Your task to perform on an android device: check android version Image 0: 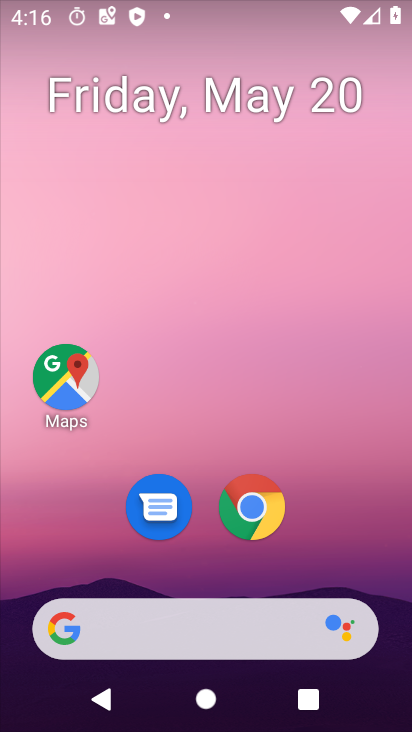
Step 0: drag from (331, 540) to (205, 103)
Your task to perform on an android device: check android version Image 1: 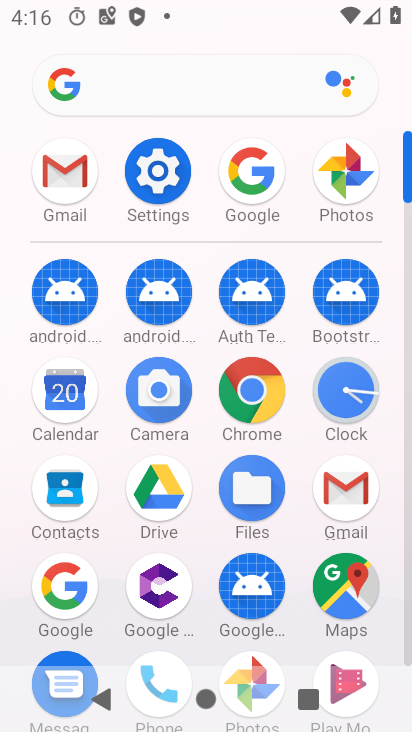
Step 1: click (158, 171)
Your task to perform on an android device: check android version Image 2: 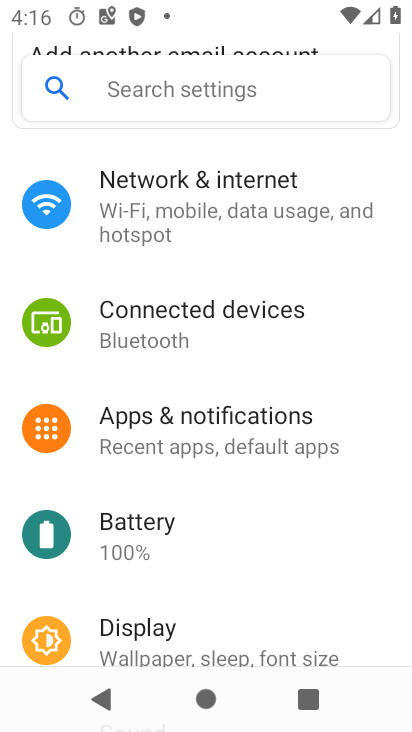
Step 2: drag from (184, 366) to (208, 276)
Your task to perform on an android device: check android version Image 3: 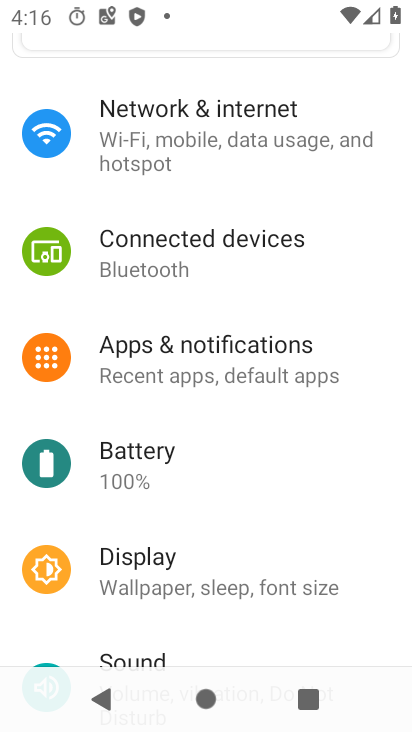
Step 3: drag from (182, 417) to (228, 329)
Your task to perform on an android device: check android version Image 4: 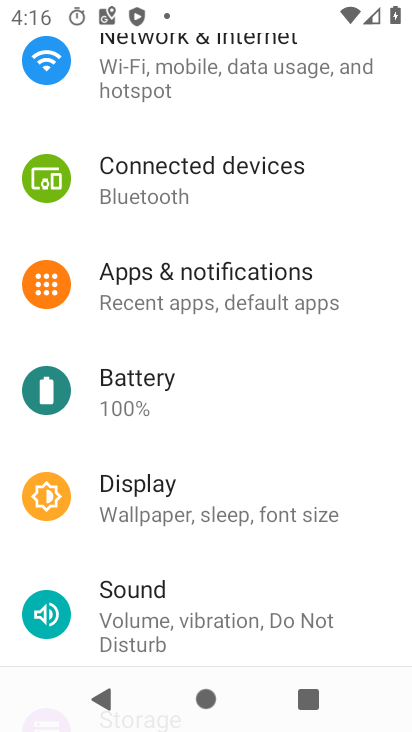
Step 4: drag from (174, 453) to (200, 363)
Your task to perform on an android device: check android version Image 5: 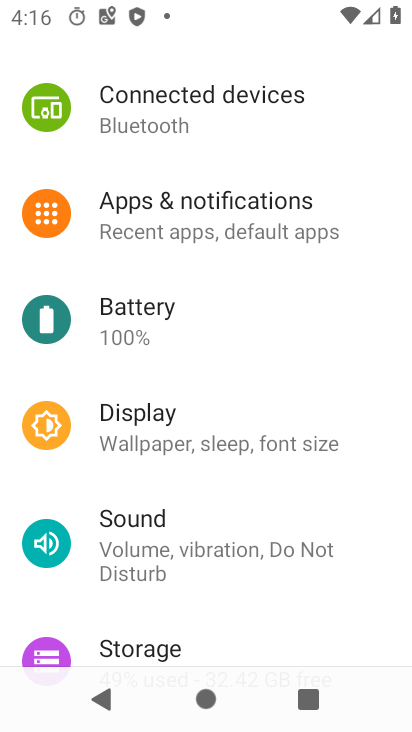
Step 5: drag from (155, 475) to (196, 394)
Your task to perform on an android device: check android version Image 6: 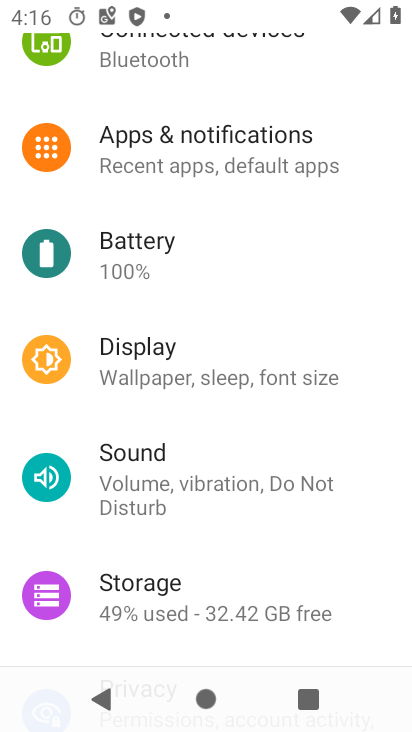
Step 6: drag from (136, 531) to (177, 448)
Your task to perform on an android device: check android version Image 7: 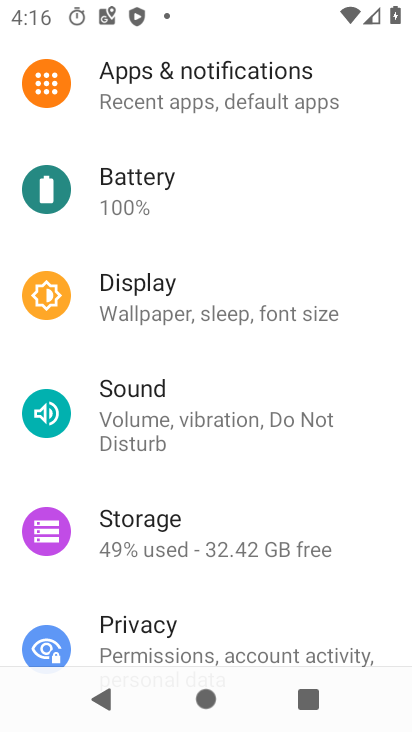
Step 7: drag from (132, 576) to (183, 477)
Your task to perform on an android device: check android version Image 8: 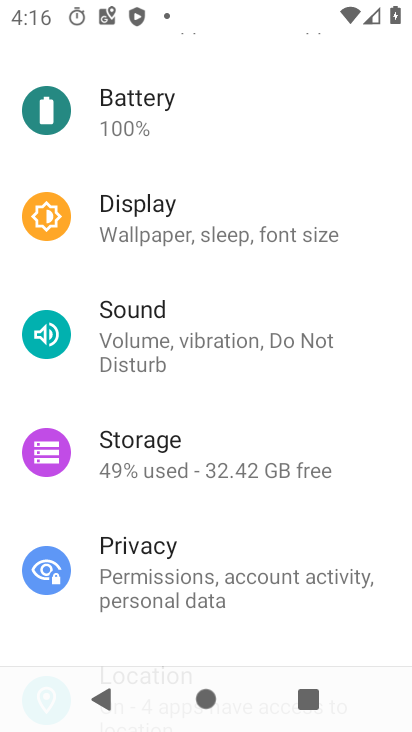
Step 8: drag from (134, 609) to (171, 512)
Your task to perform on an android device: check android version Image 9: 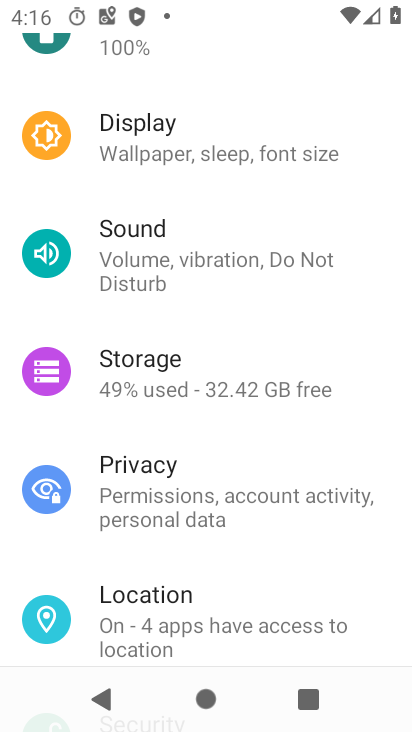
Step 9: drag from (122, 566) to (161, 463)
Your task to perform on an android device: check android version Image 10: 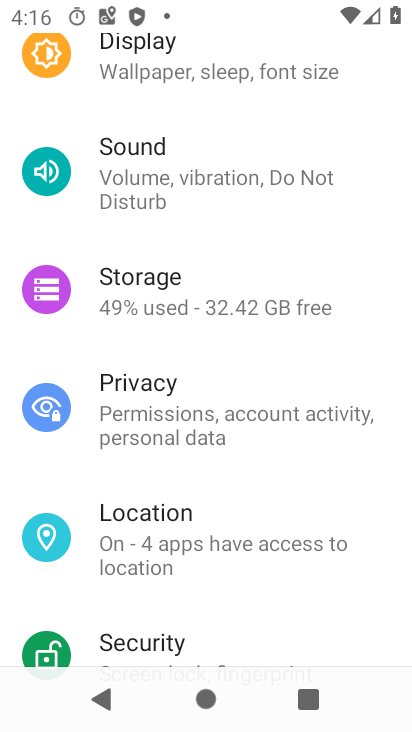
Step 10: drag from (120, 591) to (204, 465)
Your task to perform on an android device: check android version Image 11: 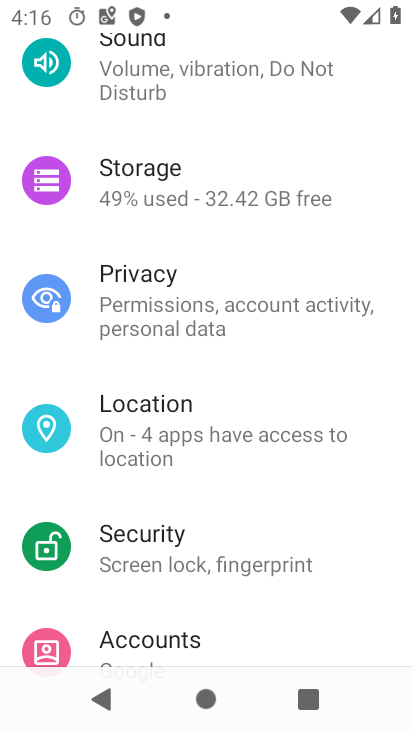
Step 11: drag from (120, 593) to (182, 479)
Your task to perform on an android device: check android version Image 12: 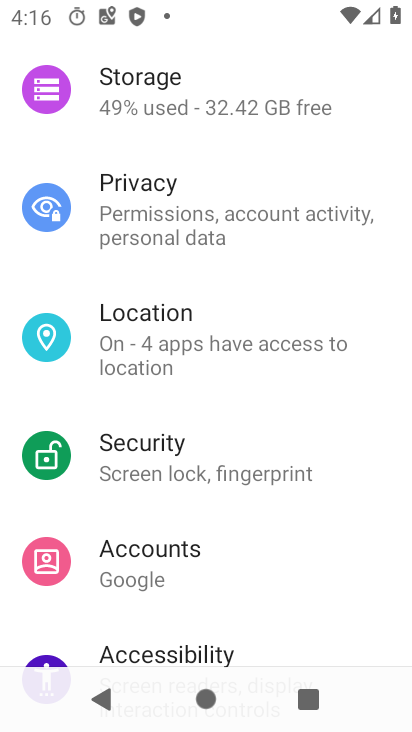
Step 12: drag from (104, 608) to (198, 489)
Your task to perform on an android device: check android version Image 13: 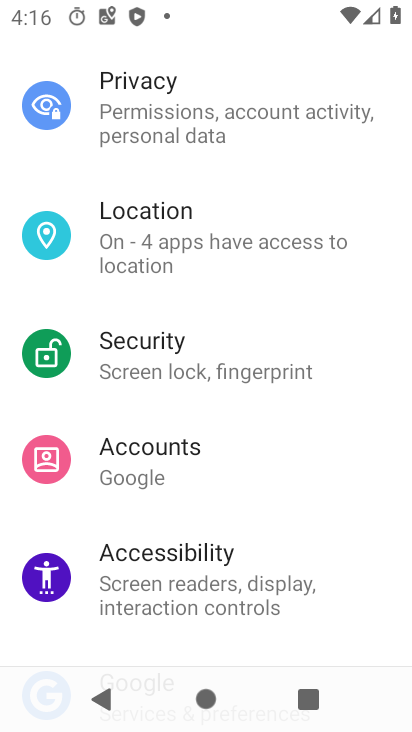
Step 13: drag from (113, 526) to (180, 430)
Your task to perform on an android device: check android version Image 14: 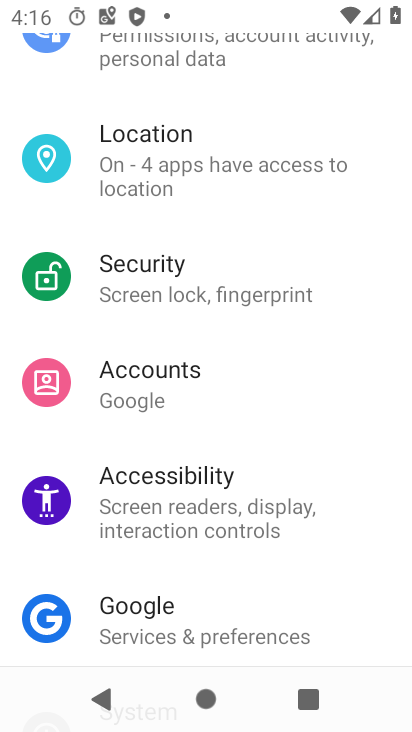
Step 14: drag from (128, 588) to (212, 462)
Your task to perform on an android device: check android version Image 15: 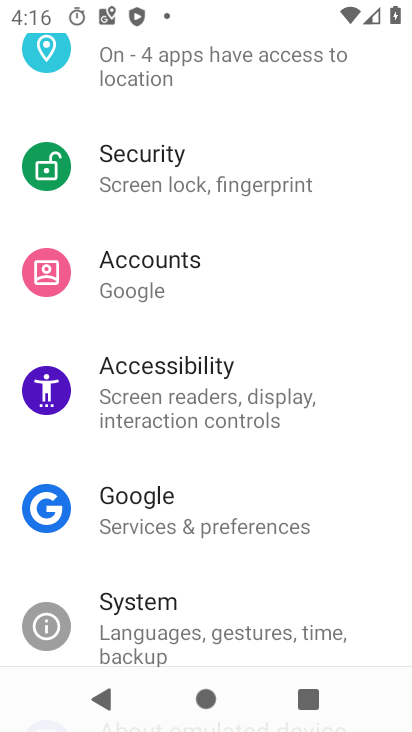
Step 15: drag from (136, 567) to (207, 451)
Your task to perform on an android device: check android version Image 16: 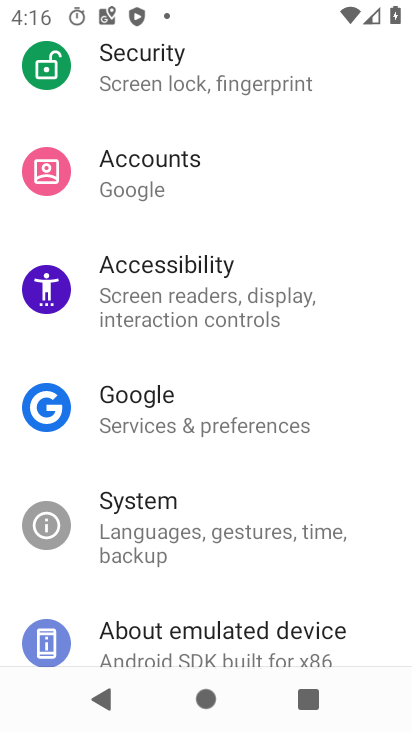
Step 16: drag from (132, 591) to (235, 470)
Your task to perform on an android device: check android version Image 17: 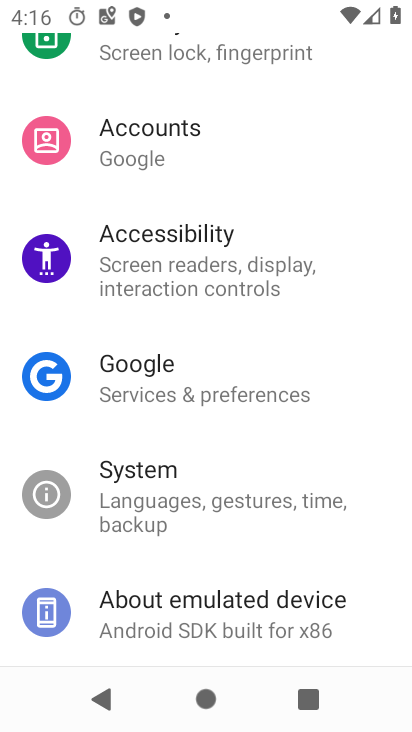
Step 17: click (205, 598)
Your task to perform on an android device: check android version Image 18: 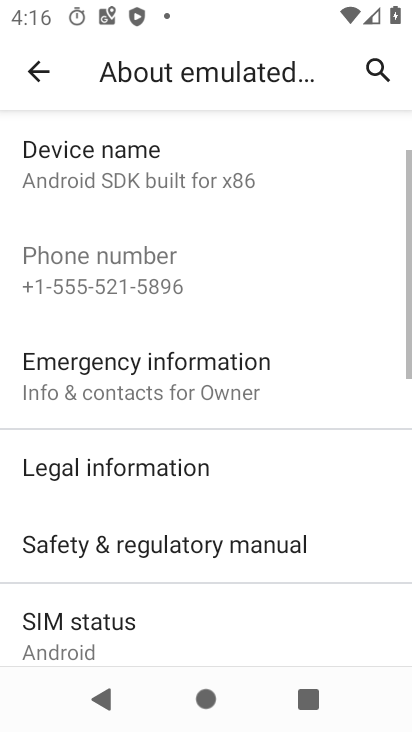
Step 18: drag from (171, 603) to (250, 478)
Your task to perform on an android device: check android version Image 19: 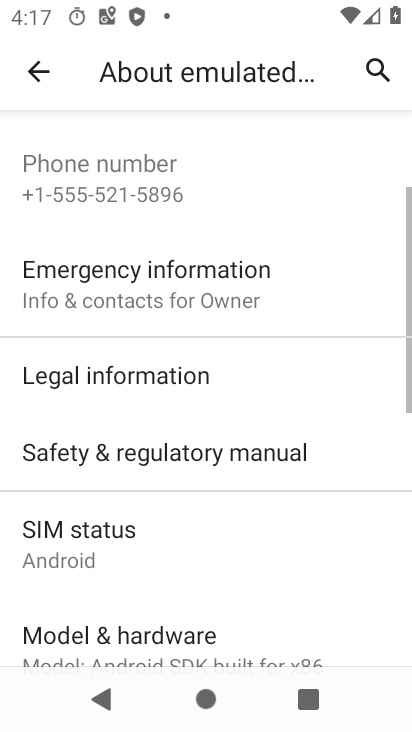
Step 19: drag from (165, 587) to (254, 462)
Your task to perform on an android device: check android version Image 20: 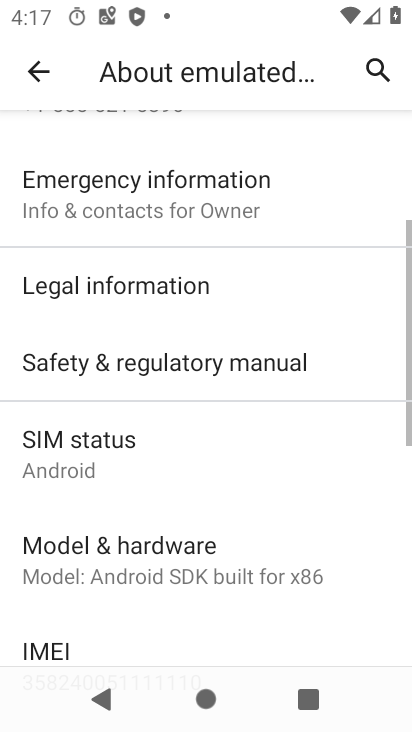
Step 20: drag from (142, 603) to (181, 455)
Your task to perform on an android device: check android version Image 21: 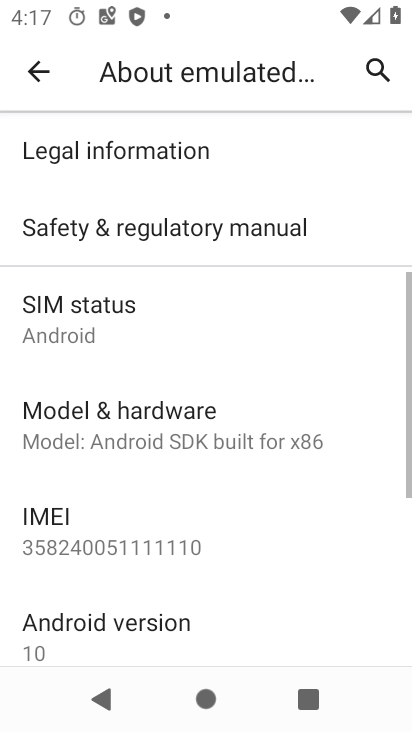
Step 21: drag from (111, 580) to (207, 409)
Your task to perform on an android device: check android version Image 22: 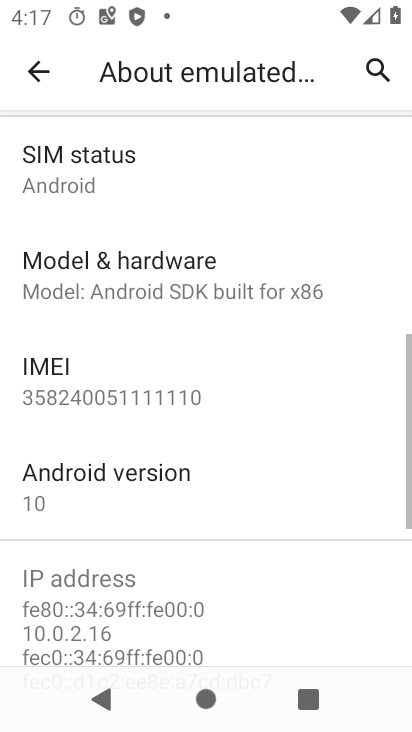
Step 22: click (141, 465)
Your task to perform on an android device: check android version Image 23: 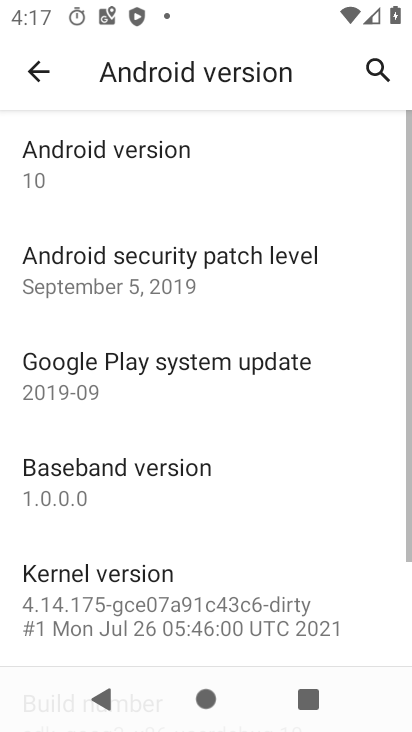
Step 23: task complete